Your task to perform on an android device: open chrome privacy settings Image 0: 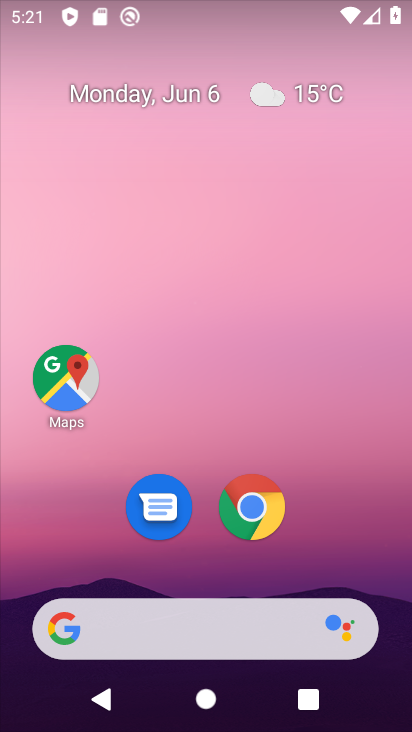
Step 0: drag from (264, 568) to (253, 144)
Your task to perform on an android device: open chrome privacy settings Image 1: 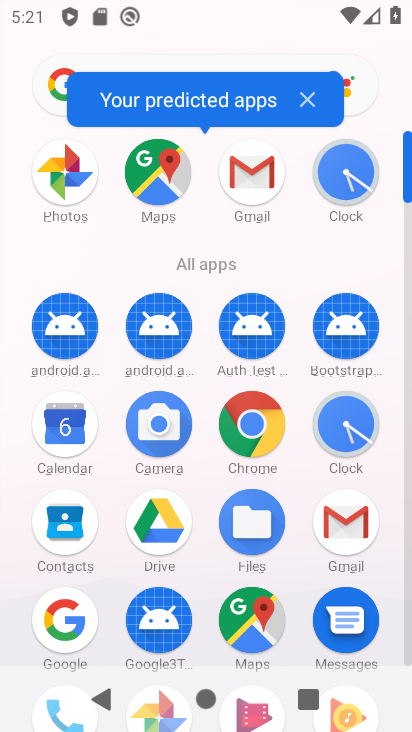
Step 1: click (245, 426)
Your task to perform on an android device: open chrome privacy settings Image 2: 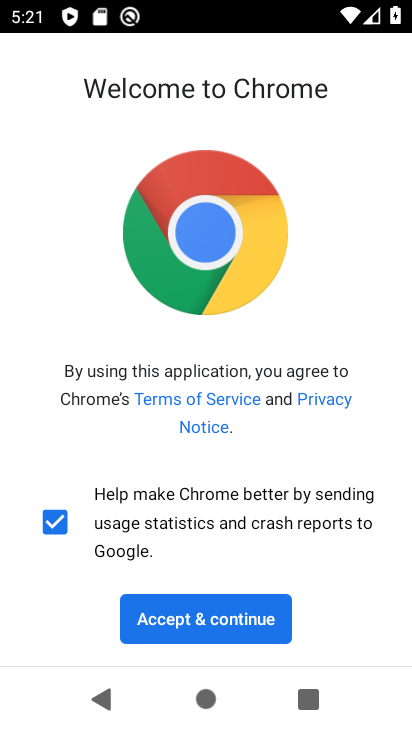
Step 2: click (197, 623)
Your task to perform on an android device: open chrome privacy settings Image 3: 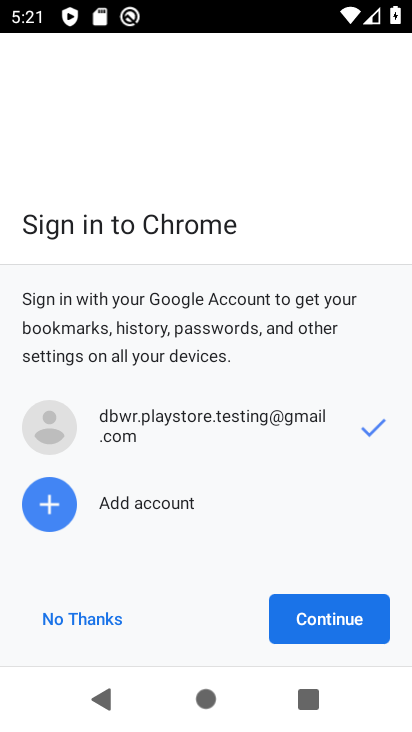
Step 3: click (309, 627)
Your task to perform on an android device: open chrome privacy settings Image 4: 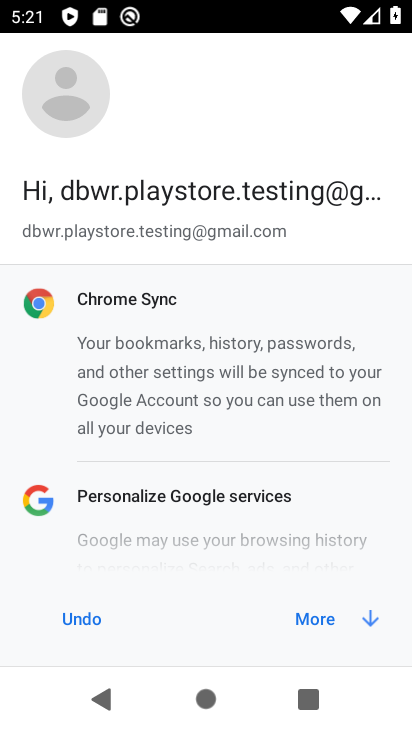
Step 4: click (309, 627)
Your task to perform on an android device: open chrome privacy settings Image 5: 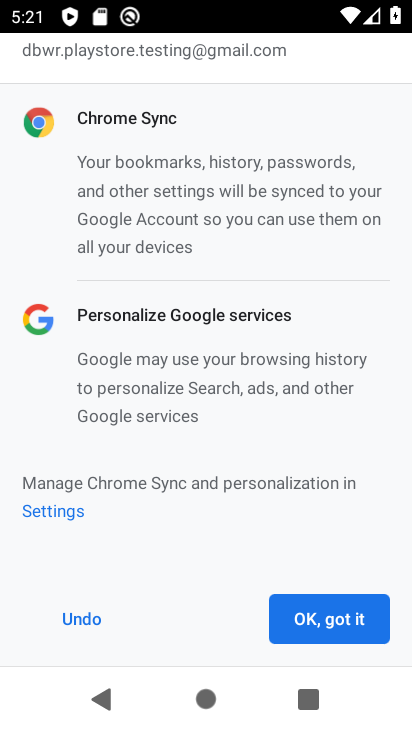
Step 5: click (309, 627)
Your task to perform on an android device: open chrome privacy settings Image 6: 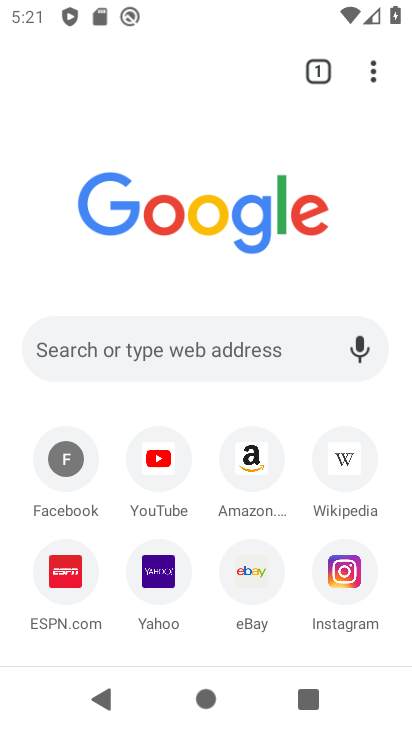
Step 6: click (367, 73)
Your task to perform on an android device: open chrome privacy settings Image 7: 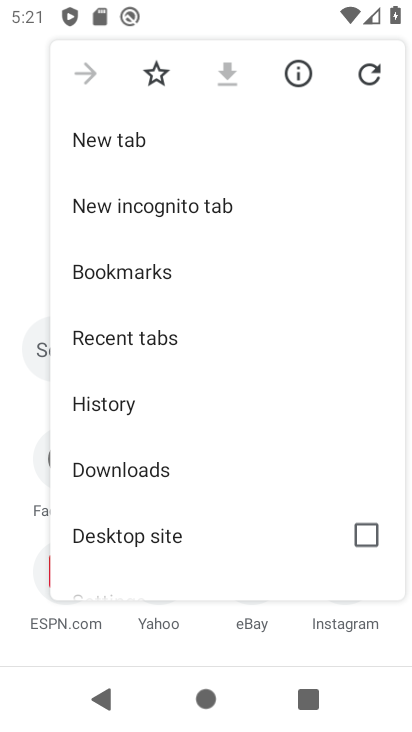
Step 7: drag from (121, 502) to (123, 253)
Your task to perform on an android device: open chrome privacy settings Image 8: 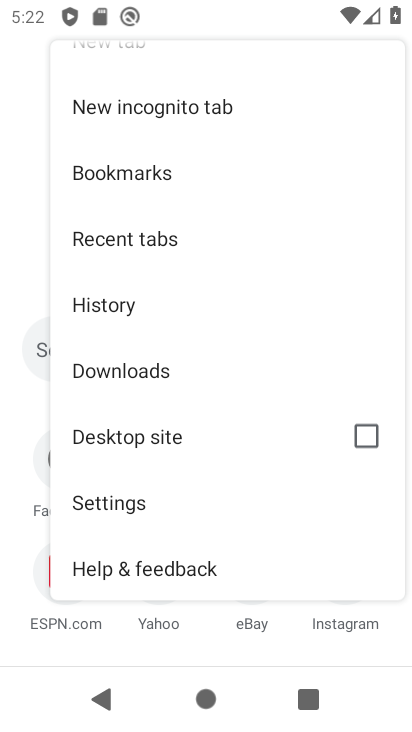
Step 8: click (115, 499)
Your task to perform on an android device: open chrome privacy settings Image 9: 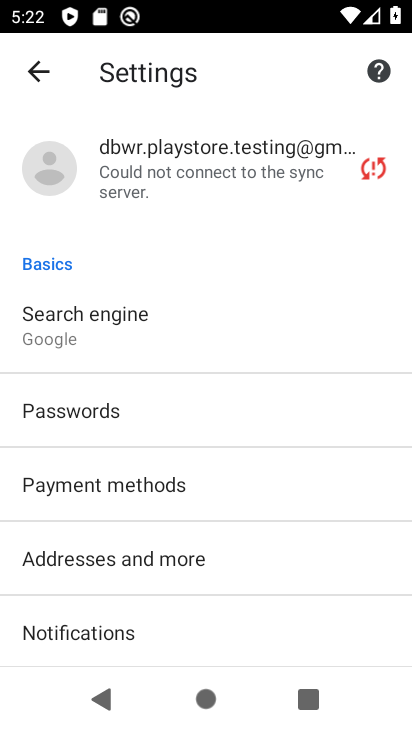
Step 9: drag from (188, 634) to (182, 7)
Your task to perform on an android device: open chrome privacy settings Image 10: 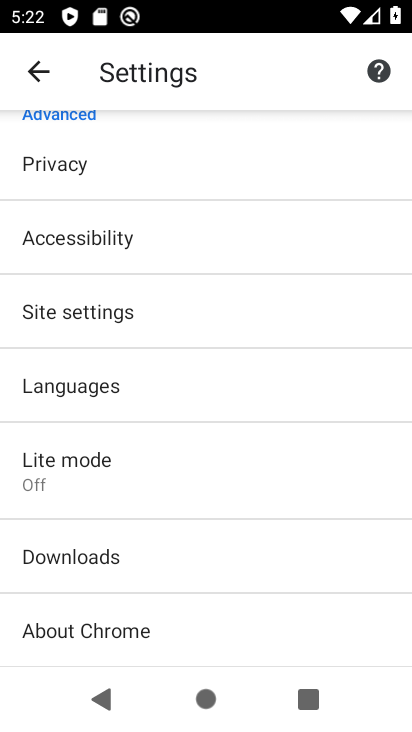
Step 10: drag from (88, 595) to (101, 541)
Your task to perform on an android device: open chrome privacy settings Image 11: 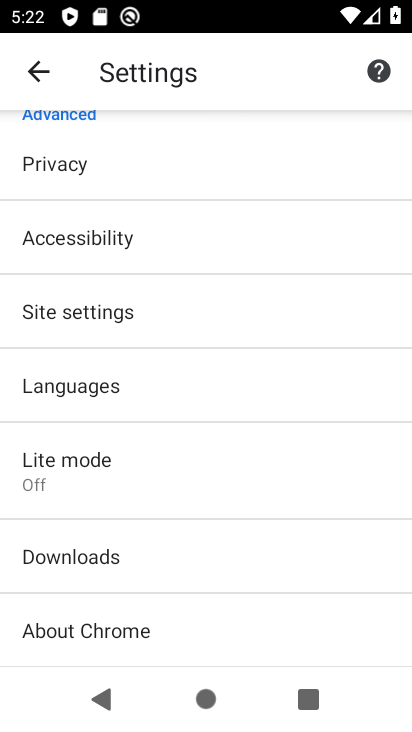
Step 11: click (15, 153)
Your task to perform on an android device: open chrome privacy settings Image 12: 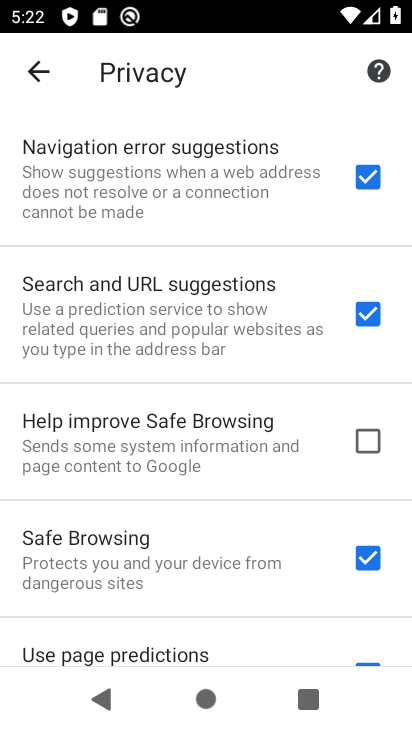
Step 12: task complete